Your task to perform on an android device: uninstall "Paramount+ | Peak Streaming" Image 0: 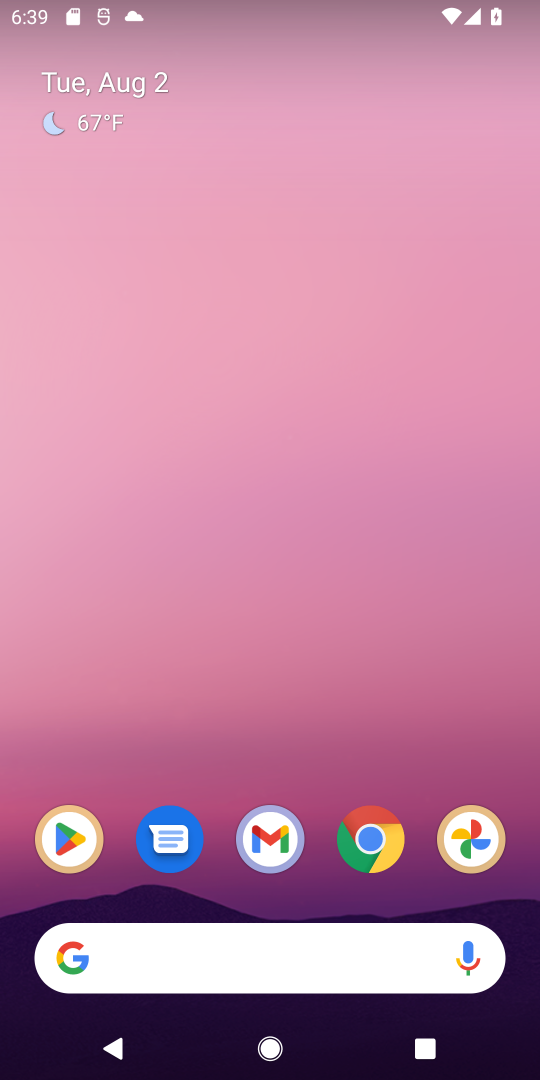
Step 0: click (74, 832)
Your task to perform on an android device: uninstall "Paramount+ | Peak Streaming" Image 1: 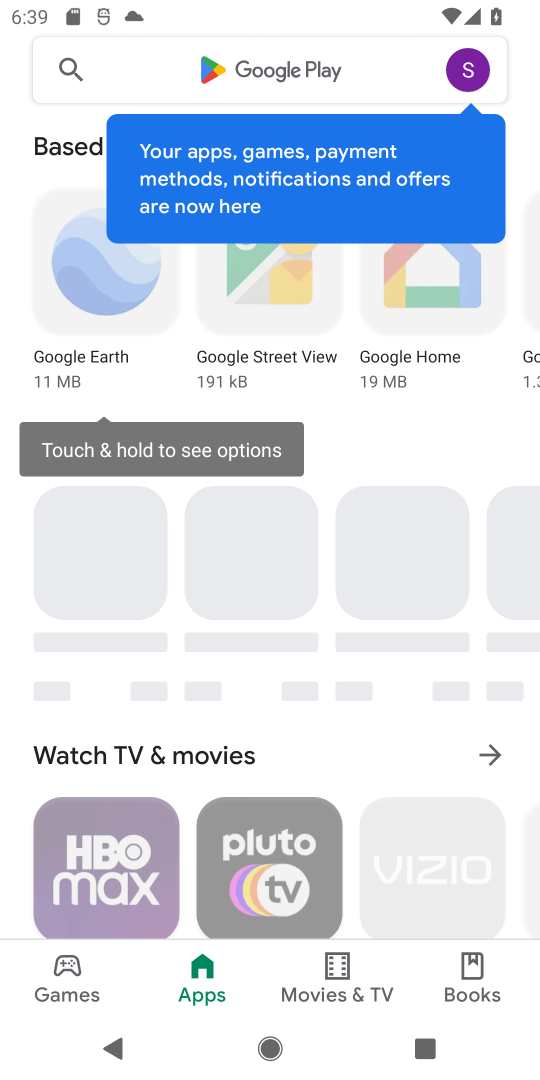
Step 1: click (262, 71)
Your task to perform on an android device: uninstall "Paramount+ | Peak Streaming" Image 2: 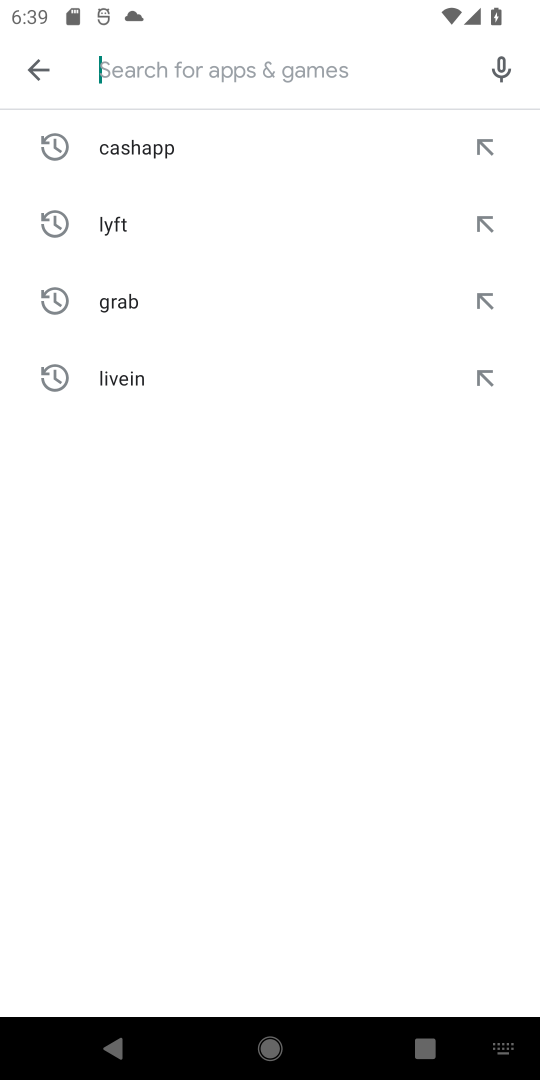
Step 2: type "Paramount+"
Your task to perform on an android device: uninstall "Paramount+ | Peak Streaming" Image 3: 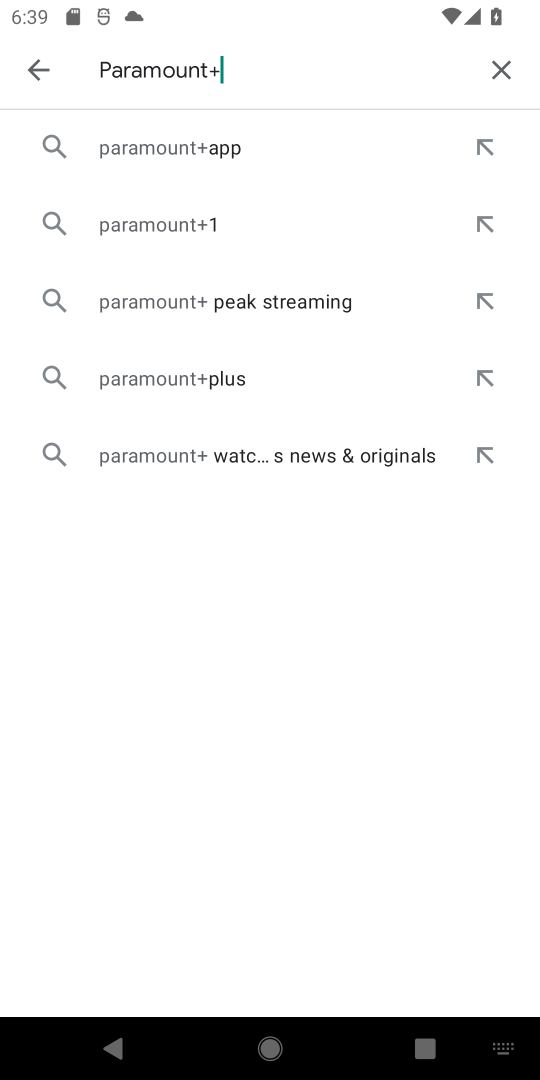
Step 3: click (320, 327)
Your task to perform on an android device: uninstall "Paramount+ | Peak Streaming" Image 4: 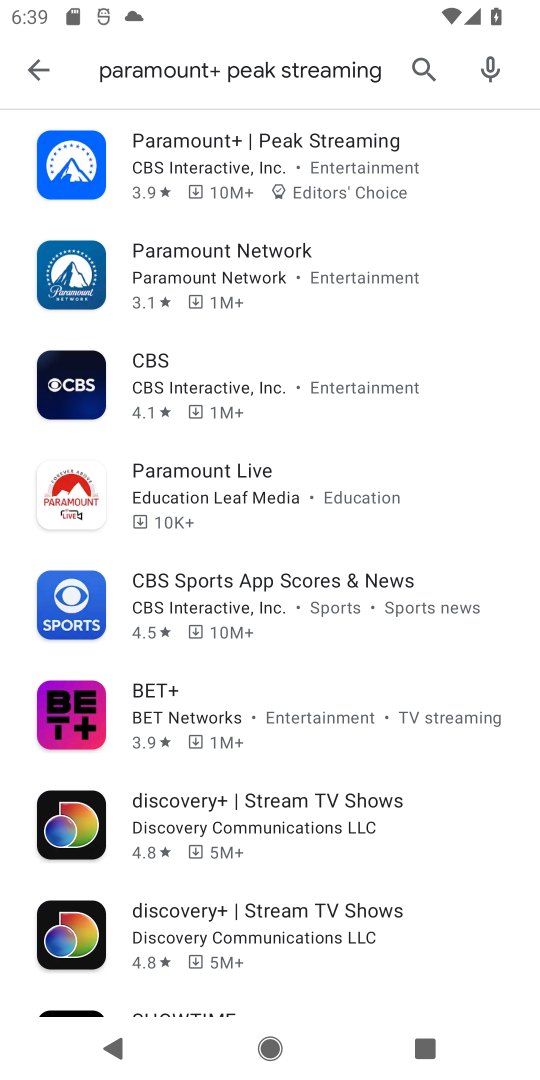
Step 4: click (207, 161)
Your task to perform on an android device: uninstall "Paramount+ | Peak Streaming" Image 5: 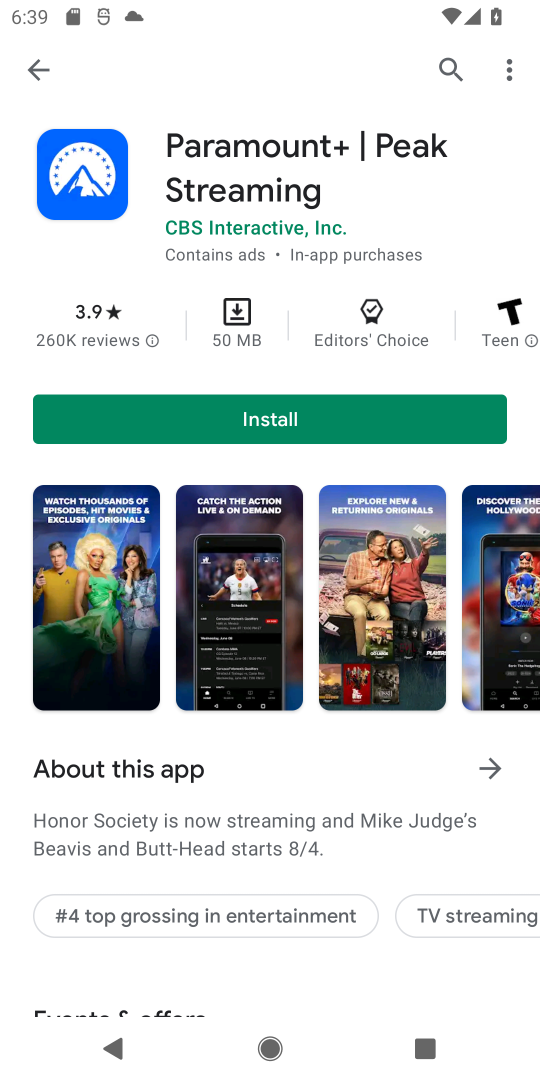
Step 5: task complete